Your task to perform on an android device: change the clock display to digital Image 0: 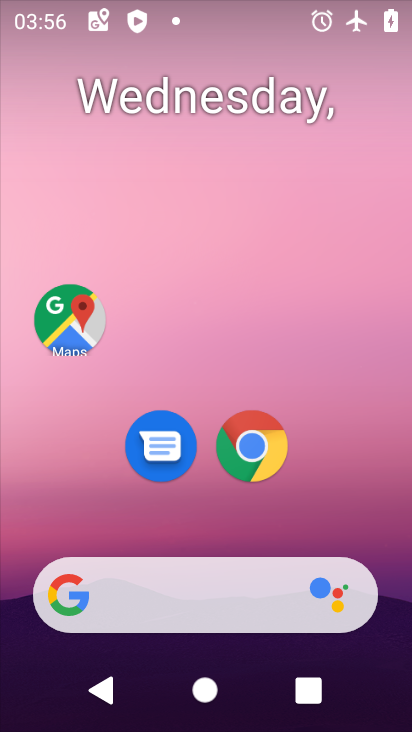
Step 0: drag from (205, 508) to (251, 95)
Your task to perform on an android device: change the clock display to digital Image 1: 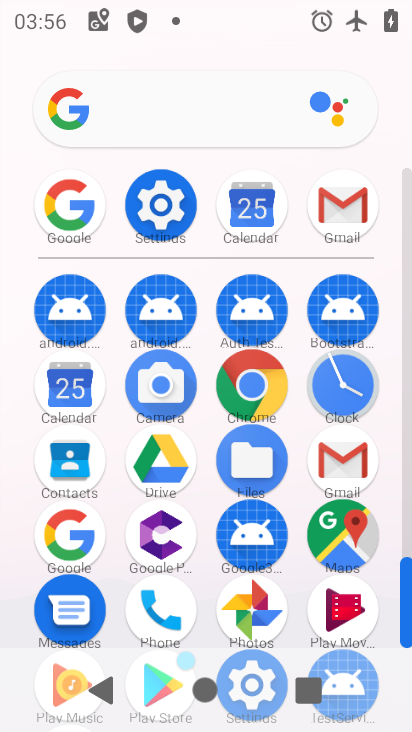
Step 1: click (329, 375)
Your task to perform on an android device: change the clock display to digital Image 2: 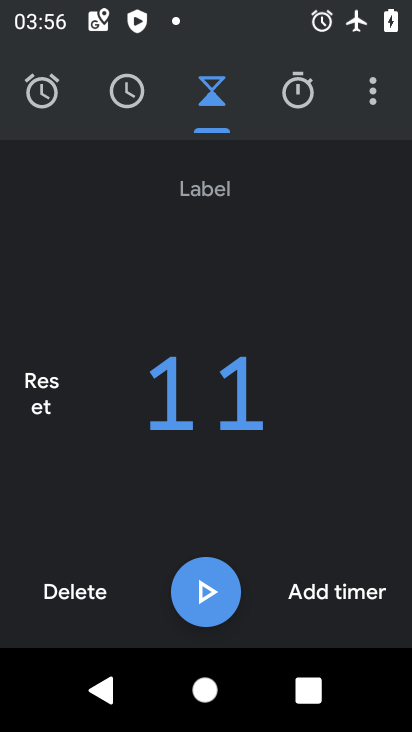
Step 2: click (375, 98)
Your task to perform on an android device: change the clock display to digital Image 3: 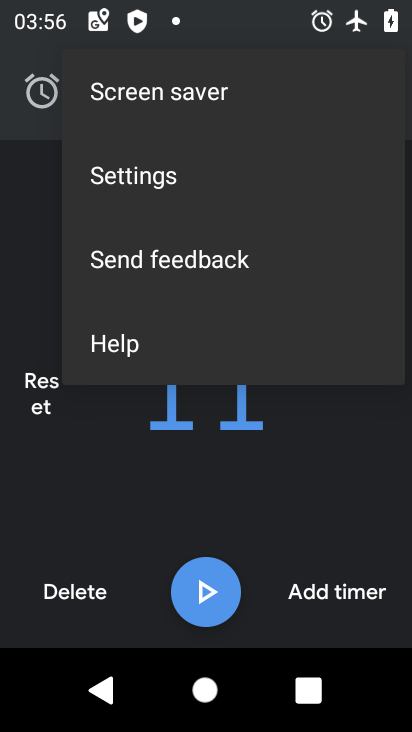
Step 3: click (170, 182)
Your task to perform on an android device: change the clock display to digital Image 4: 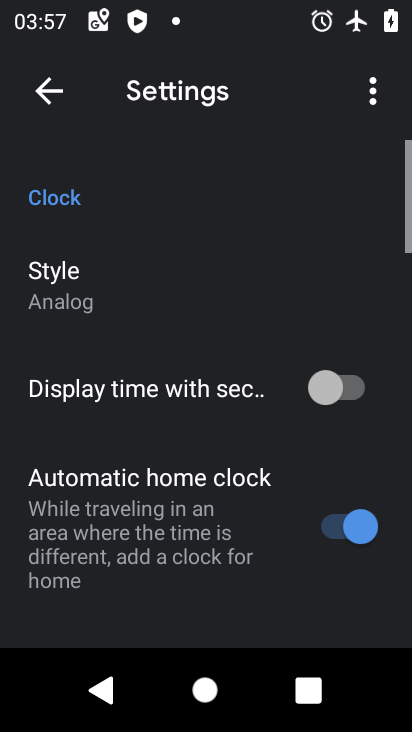
Step 4: click (132, 289)
Your task to perform on an android device: change the clock display to digital Image 5: 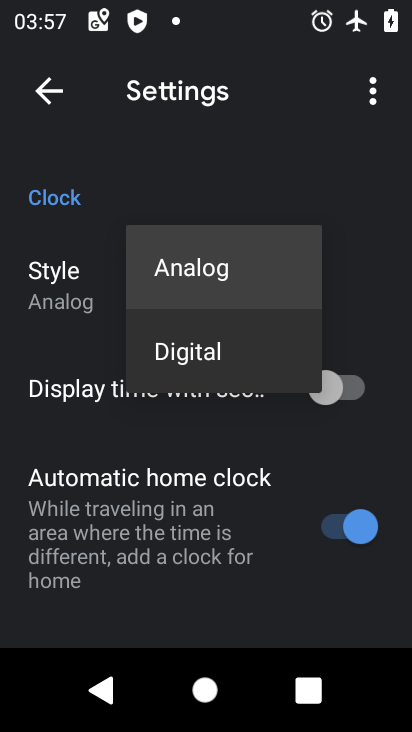
Step 5: click (173, 343)
Your task to perform on an android device: change the clock display to digital Image 6: 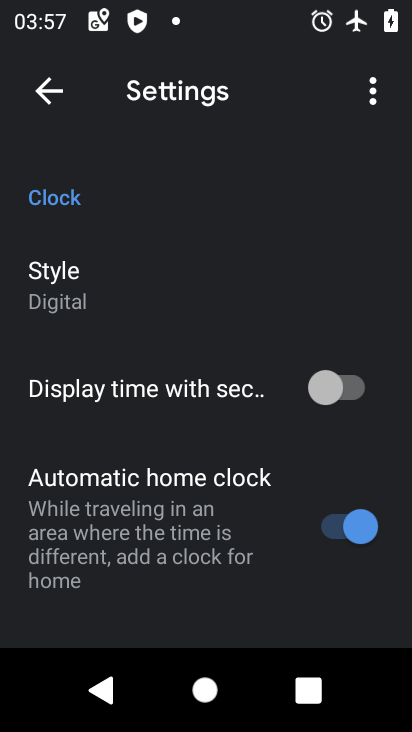
Step 6: task complete